Your task to perform on an android device: manage bookmarks in the chrome app Image 0: 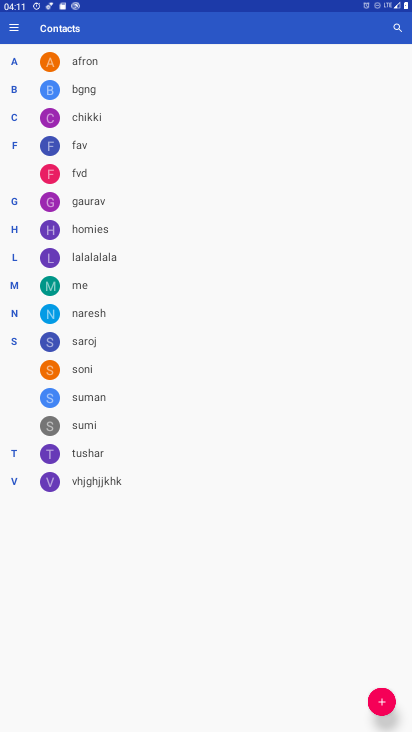
Step 0: press home button
Your task to perform on an android device: manage bookmarks in the chrome app Image 1: 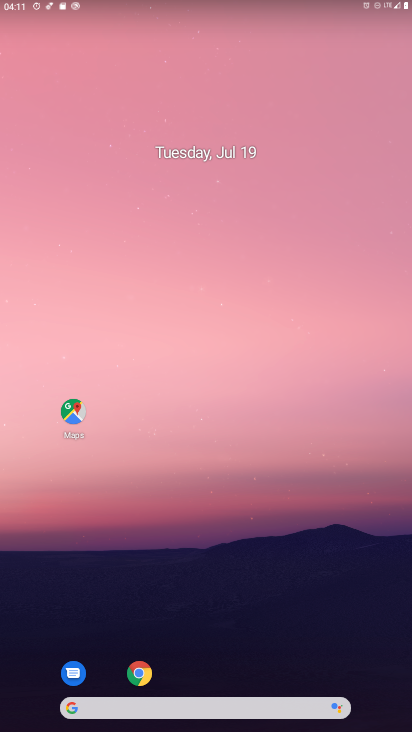
Step 1: click (134, 670)
Your task to perform on an android device: manage bookmarks in the chrome app Image 2: 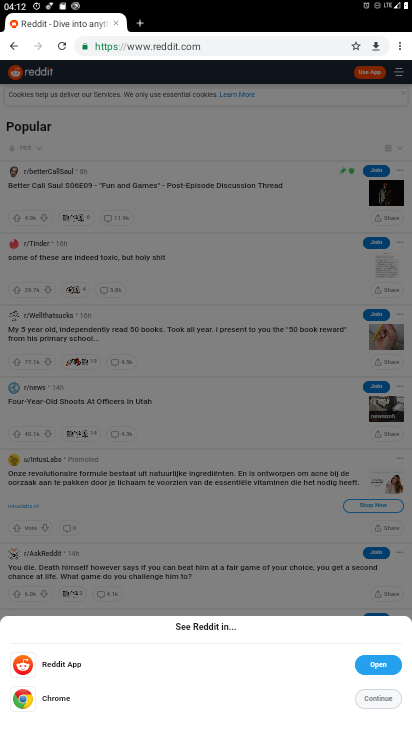
Step 2: click (401, 43)
Your task to perform on an android device: manage bookmarks in the chrome app Image 3: 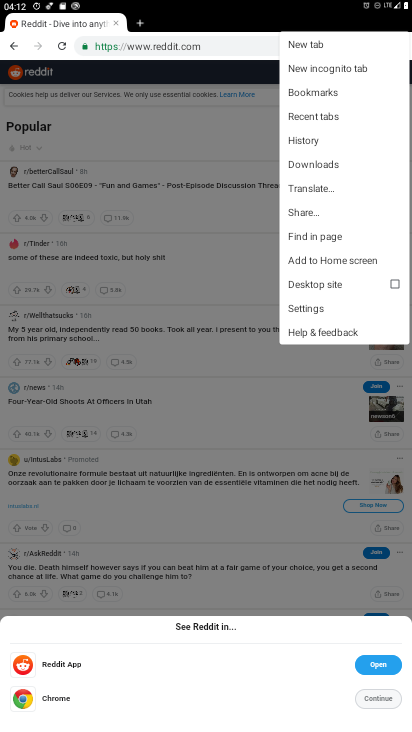
Step 3: click (320, 87)
Your task to perform on an android device: manage bookmarks in the chrome app Image 4: 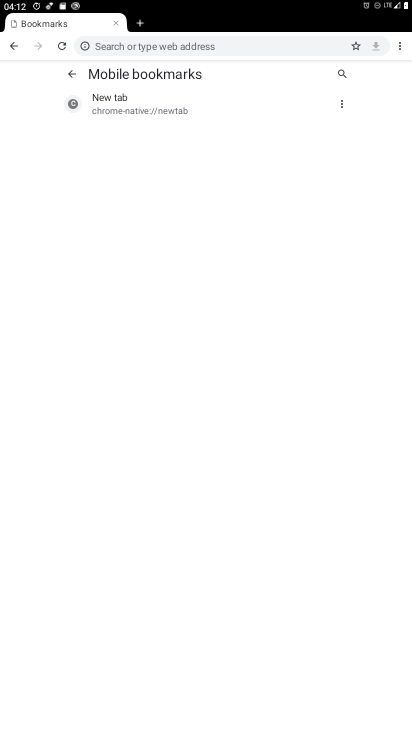
Step 4: click (341, 103)
Your task to perform on an android device: manage bookmarks in the chrome app Image 5: 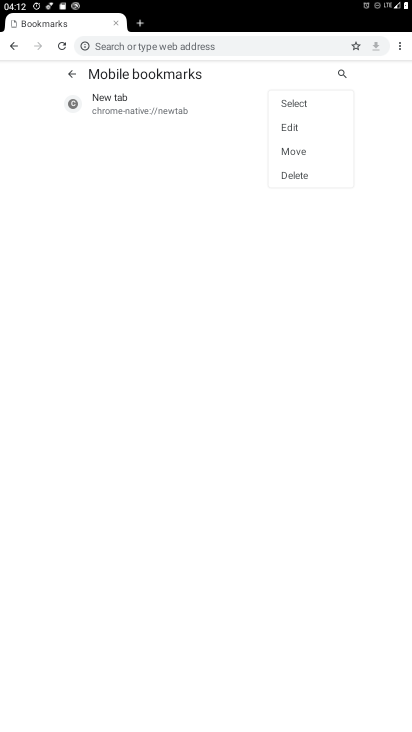
Step 5: click (299, 105)
Your task to perform on an android device: manage bookmarks in the chrome app Image 6: 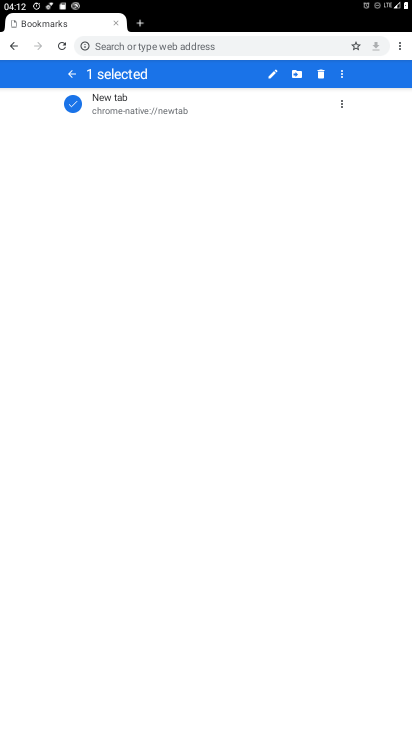
Step 6: click (275, 73)
Your task to perform on an android device: manage bookmarks in the chrome app Image 7: 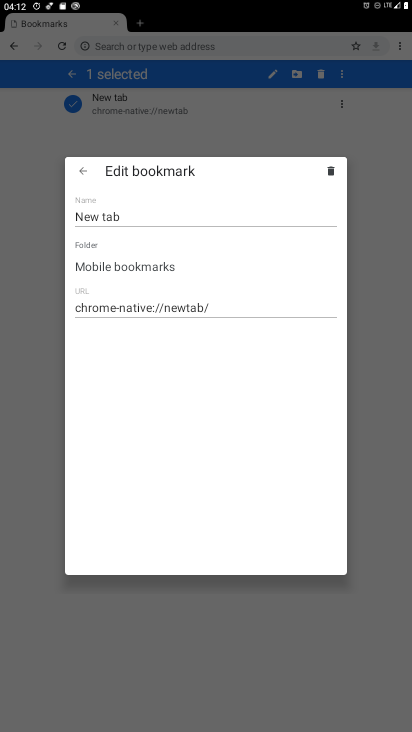
Step 7: click (105, 216)
Your task to perform on an android device: manage bookmarks in the chrome app Image 8: 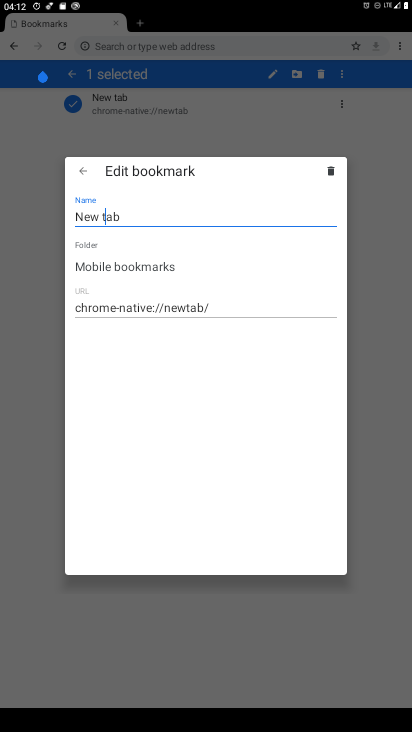
Step 8: click (105, 216)
Your task to perform on an android device: manage bookmarks in the chrome app Image 9: 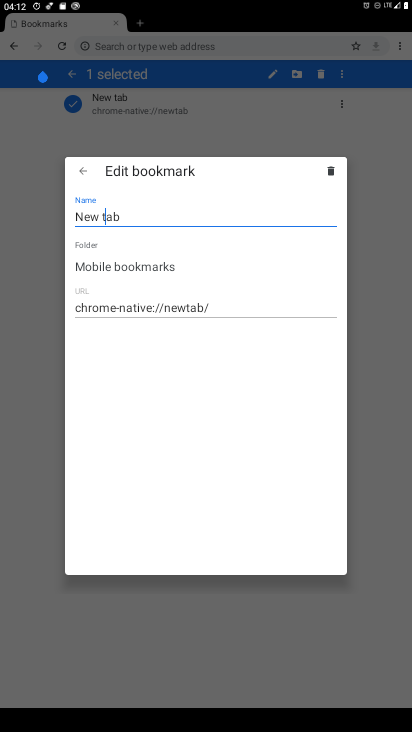
Step 9: click (79, 215)
Your task to perform on an android device: manage bookmarks in the chrome app Image 10: 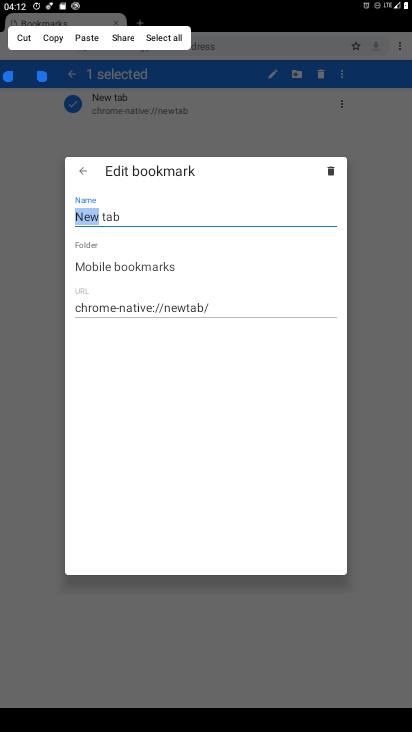
Step 10: type "lape"
Your task to perform on an android device: manage bookmarks in the chrome app Image 11: 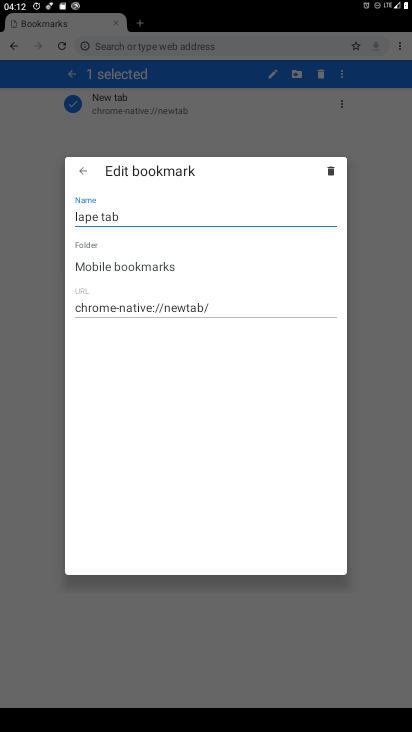
Step 11: click (77, 173)
Your task to perform on an android device: manage bookmarks in the chrome app Image 12: 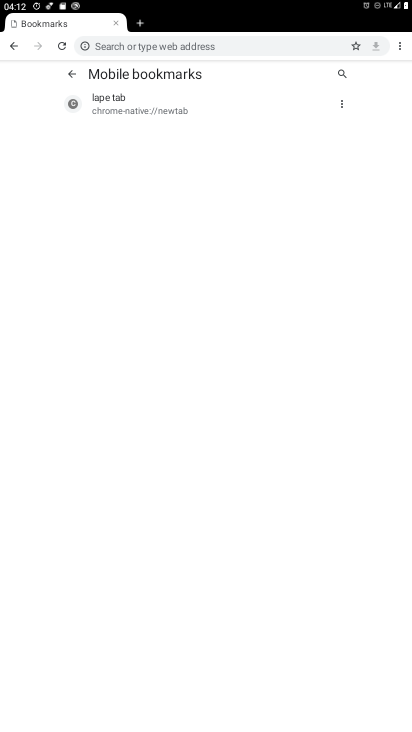
Step 12: task complete